Your task to perform on an android device: Open Amazon Image 0: 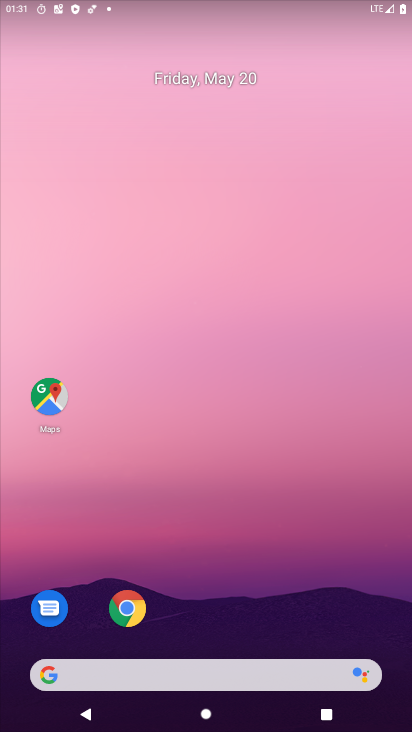
Step 0: press home button
Your task to perform on an android device: Open Amazon Image 1: 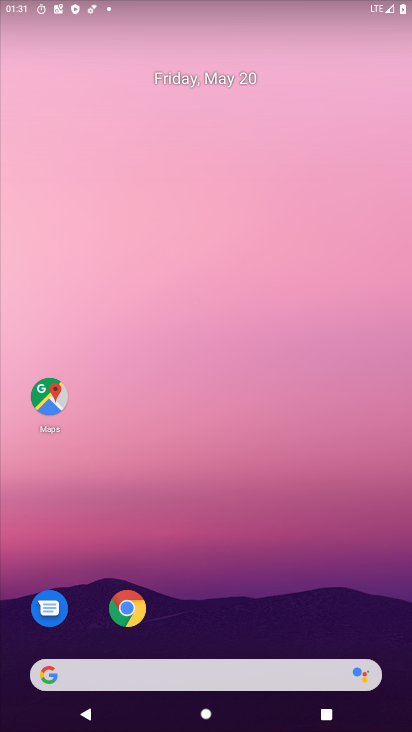
Step 1: drag from (365, 602) to (305, 206)
Your task to perform on an android device: Open Amazon Image 2: 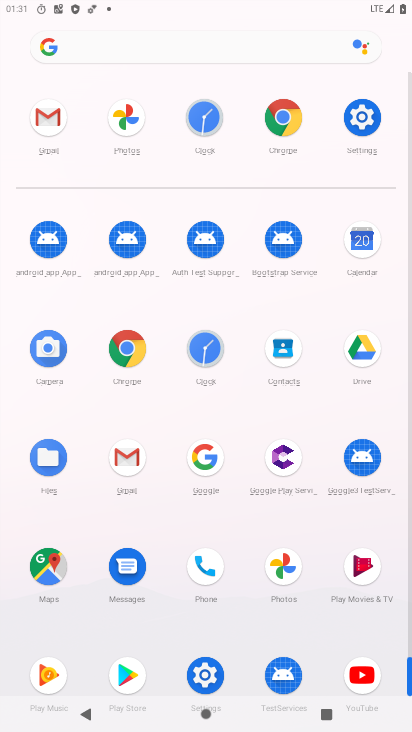
Step 2: click (137, 351)
Your task to perform on an android device: Open Amazon Image 3: 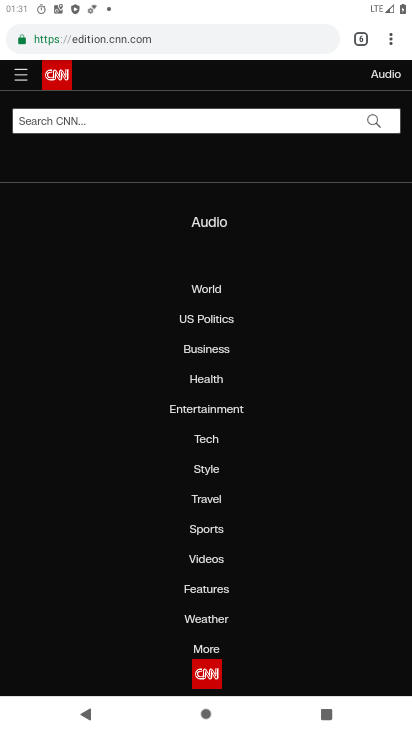
Step 3: click (364, 38)
Your task to perform on an android device: Open Amazon Image 4: 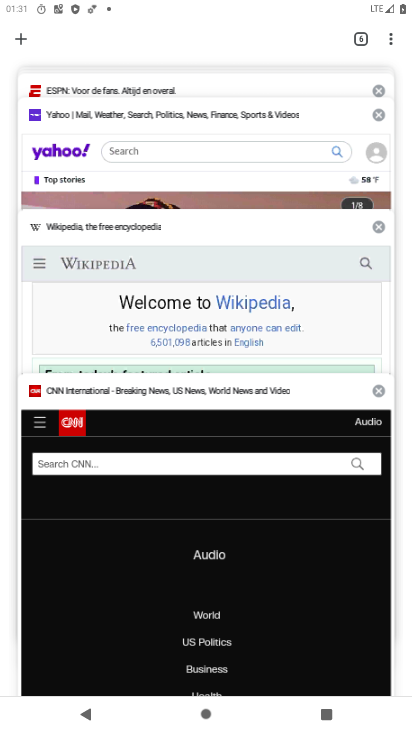
Step 4: click (16, 39)
Your task to perform on an android device: Open Amazon Image 5: 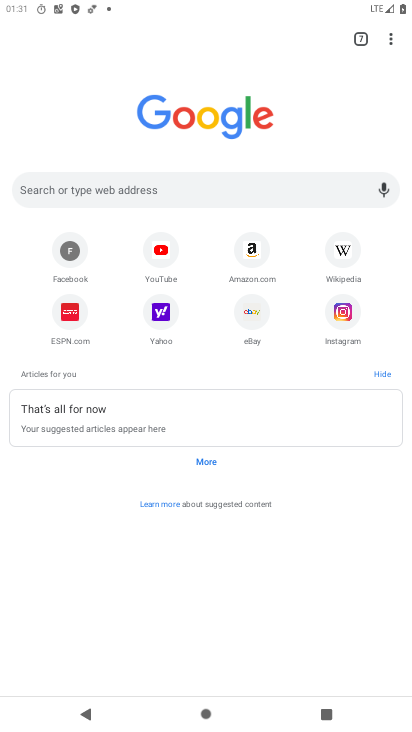
Step 5: click (248, 264)
Your task to perform on an android device: Open Amazon Image 6: 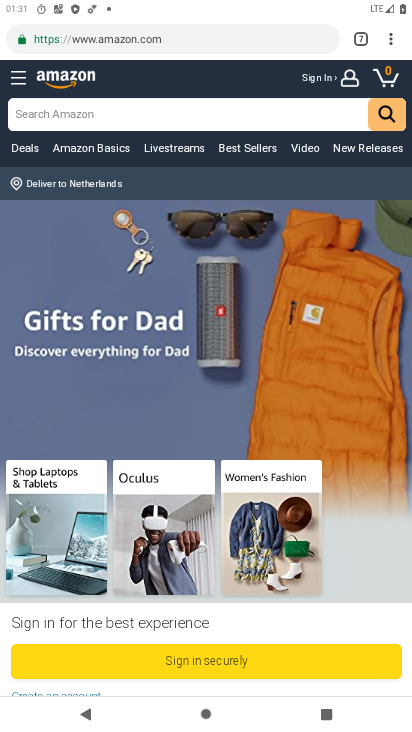
Step 6: task complete